Your task to perform on an android device: turn on the 24-hour format for clock Image 0: 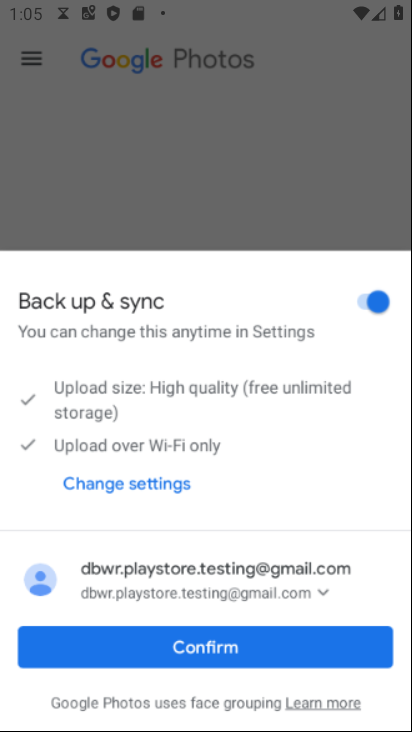
Step 0: drag from (163, 408) to (157, 0)
Your task to perform on an android device: turn on the 24-hour format for clock Image 1: 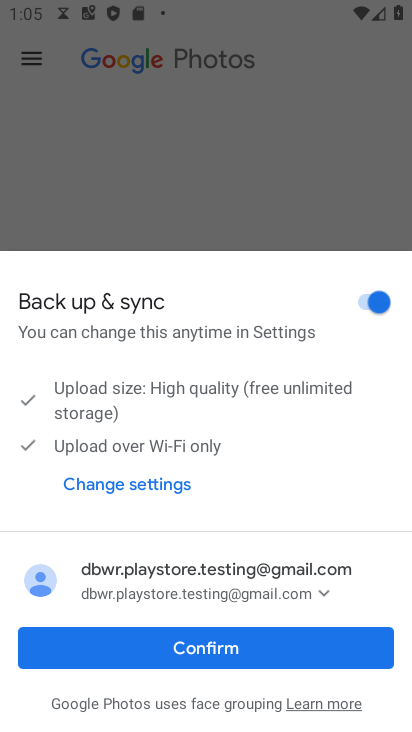
Step 1: press home button
Your task to perform on an android device: turn on the 24-hour format for clock Image 2: 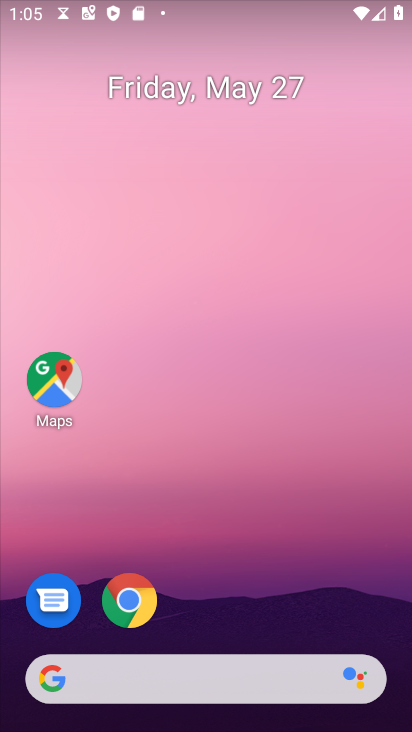
Step 2: drag from (257, 470) to (213, 60)
Your task to perform on an android device: turn on the 24-hour format for clock Image 3: 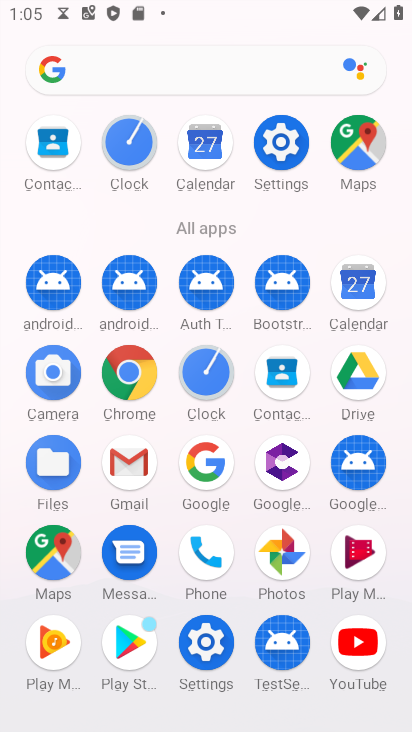
Step 3: click (128, 145)
Your task to perform on an android device: turn on the 24-hour format for clock Image 4: 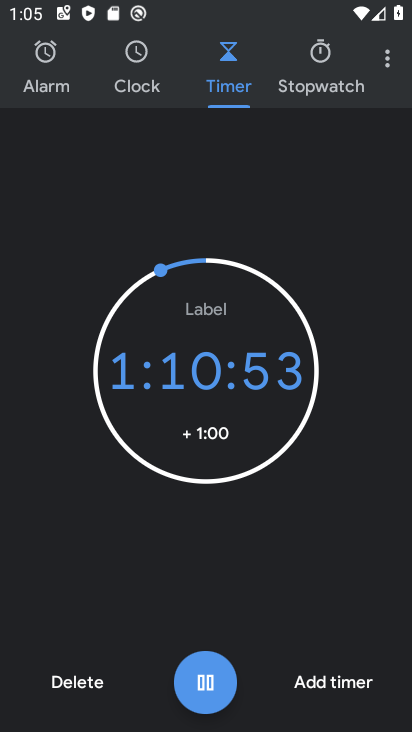
Step 4: click (351, 49)
Your task to perform on an android device: turn on the 24-hour format for clock Image 5: 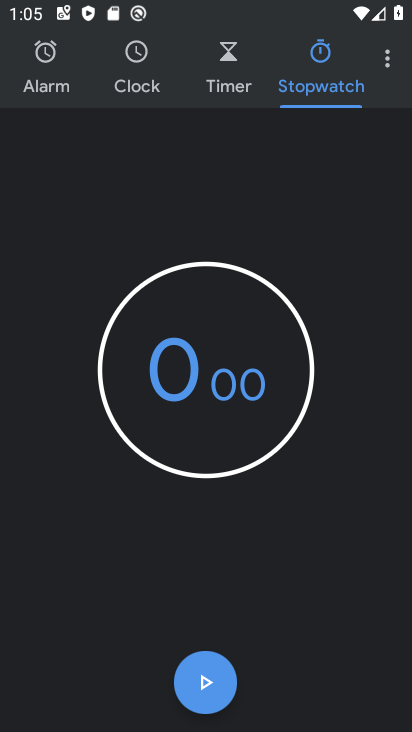
Step 5: click (357, 46)
Your task to perform on an android device: turn on the 24-hour format for clock Image 6: 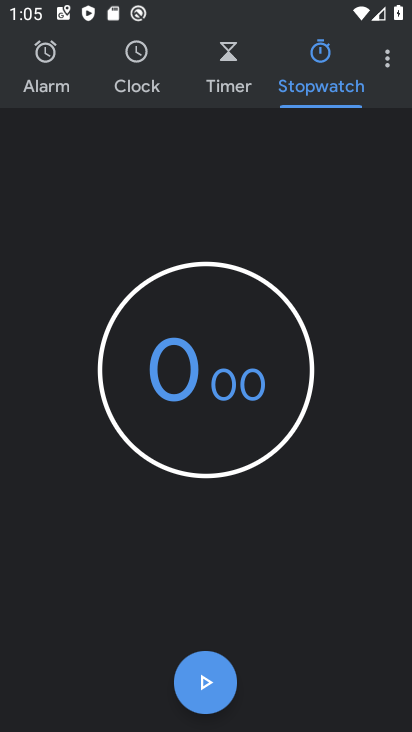
Step 6: click (395, 72)
Your task to perform on an android device: turn on the 24-hour format for clock Image 7: 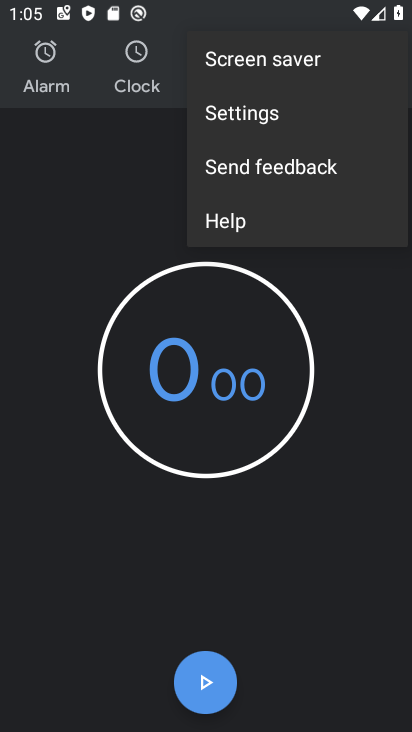
Step 7: click (264, 129)
Your task to perform on an android device: turn on the 24-hour format for clock Image 8: 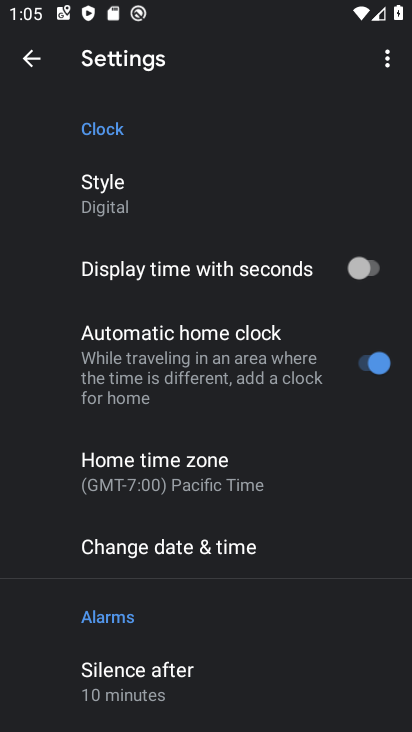
Step 8: click (253, 550)
Your task to perform on an android device: turn on the 24-hour format for clock Image 9: 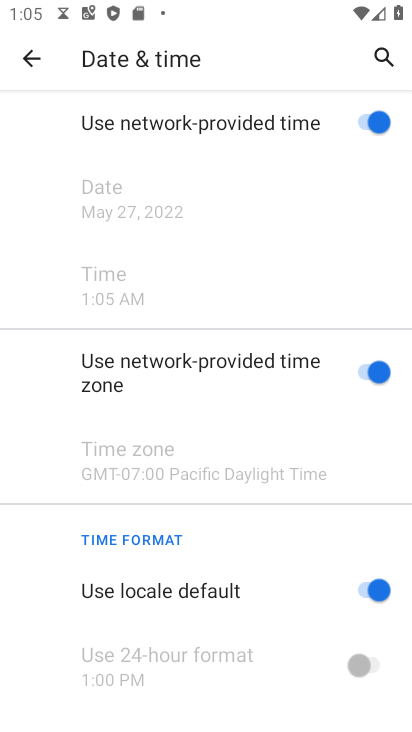
Step 9: click (390, 579)
Your task to perform on an android device: turn on the 24-hour format for clock Image 10: 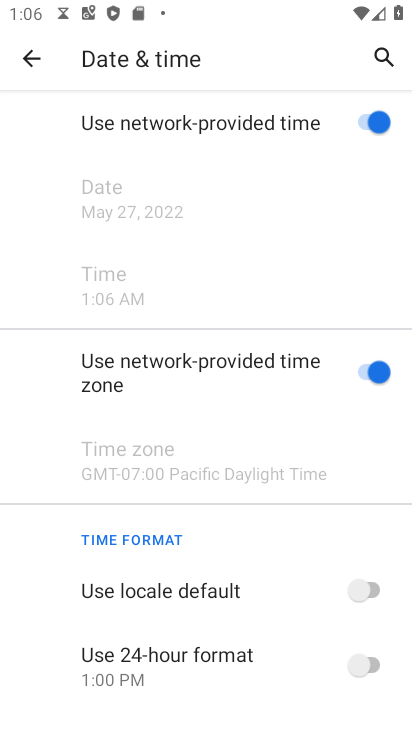
Step 10: click (362, 666)
Your task to perform on an android device: turn on the 24-hour format for clock Image 11: 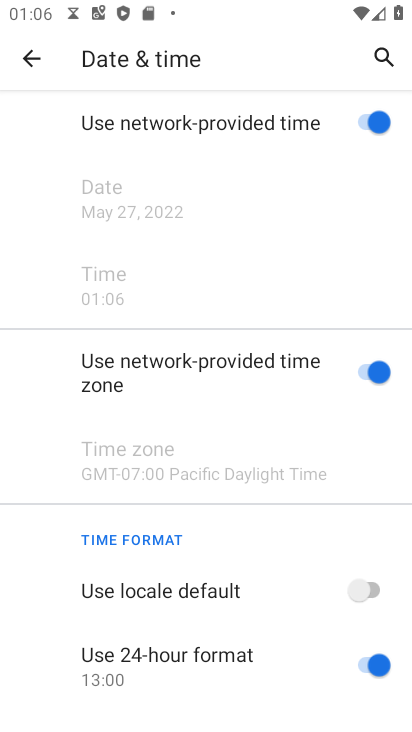
Step 11: task complete